Your task to perform on an android device: turn on location history Image 0: 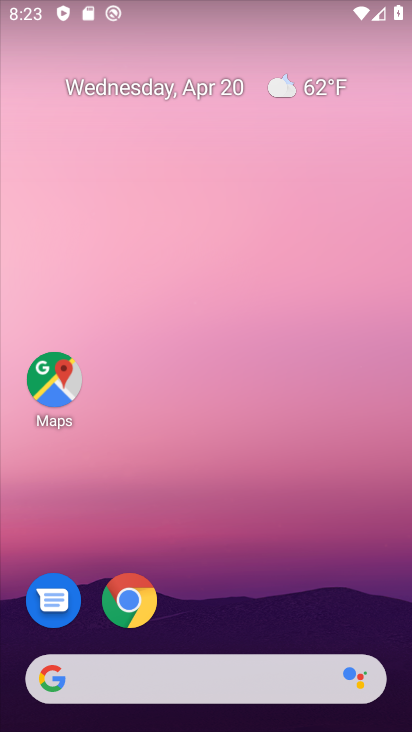
Step 0: drag from (213, 726) to (209, 154)
Your task to perform on an android device: turn on location history Image 1: 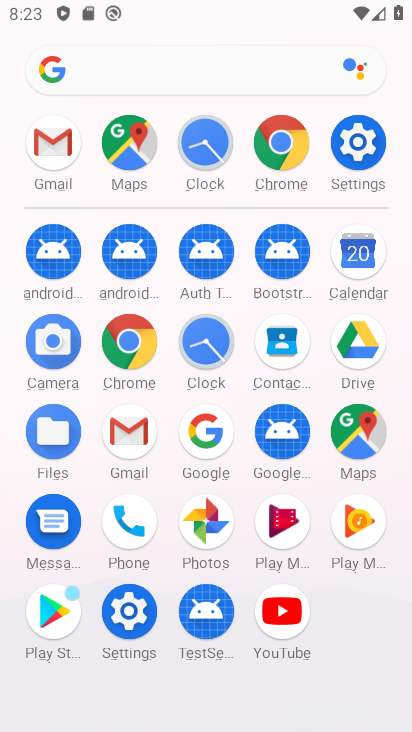
Step 1: click (361, 140)
Your task to perform on an android device: turn on location history Image 2: 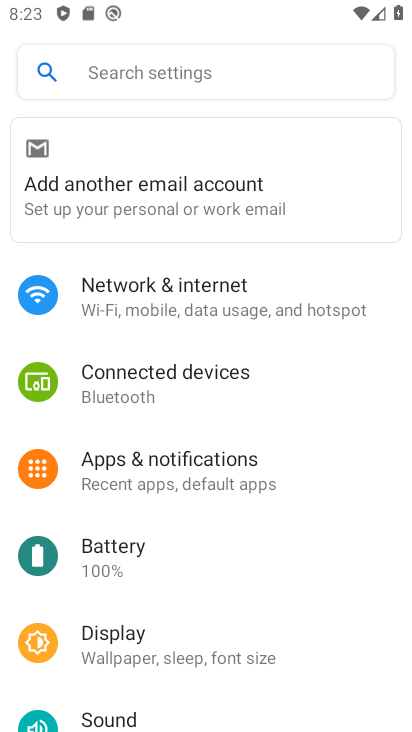
Step 2: drag from (177, 683) to (167, 287)
Your task to perform on an android device: turn on location history Image 3: 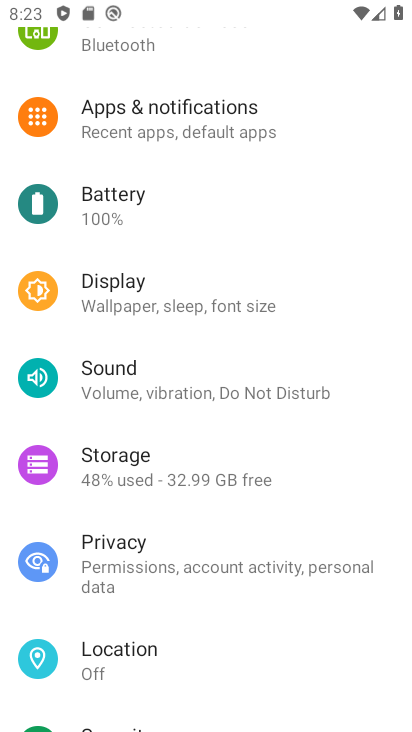
Step 3: click (101, 654)
Your task to perform on an android device: turn on location history Image 4: 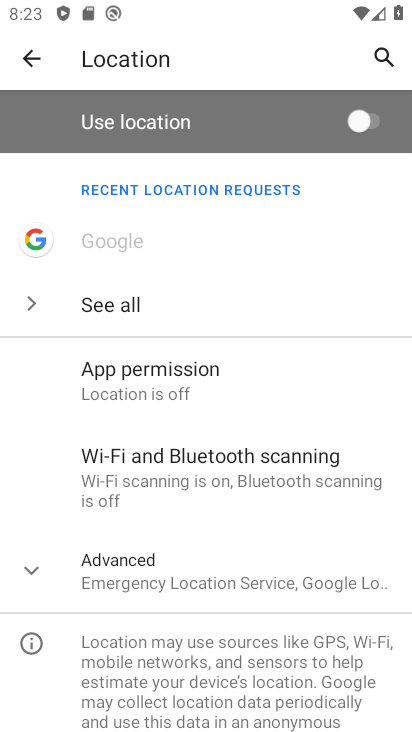
Step 4: click (175, 577)
Your task to perform on an android device: turn on location history Image 5: 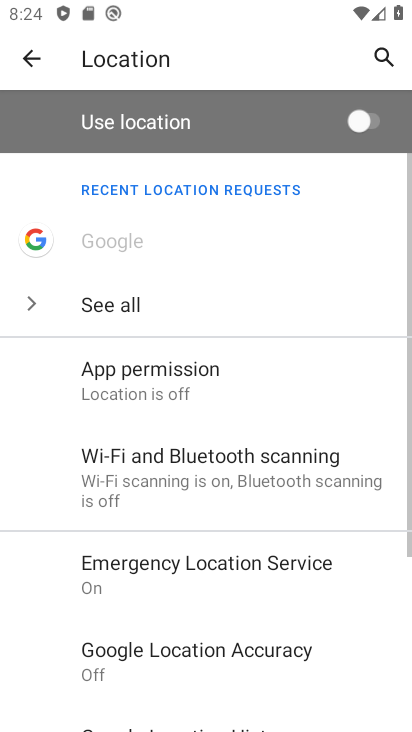
Step 5: drag from (183, 707) to (190, 447)
Your task to perform on an android device: turn on location history Image 6: 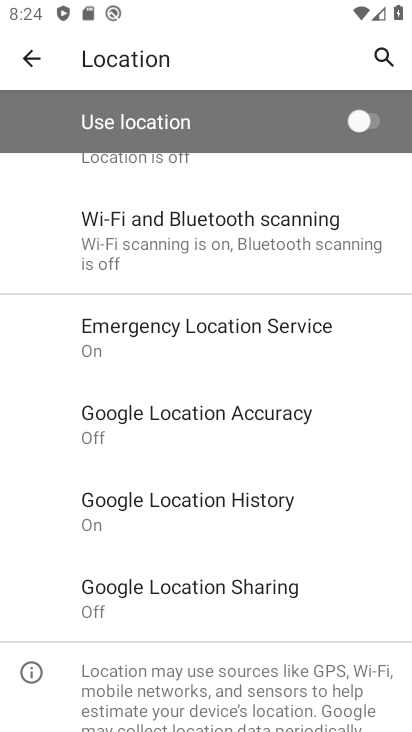
Step 6: click (204, 500)
Your task to perform on an android device: turn on location history Image 7: 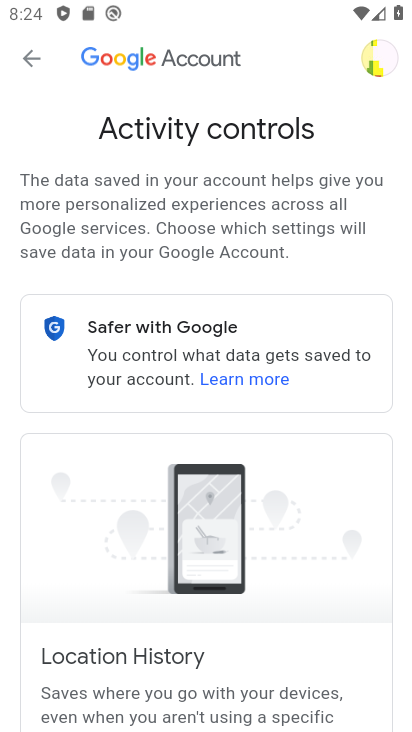
Step 7: drag from (184, 681) to (182, 213)
Your task to perform on an android device: turn on location history Image 8: 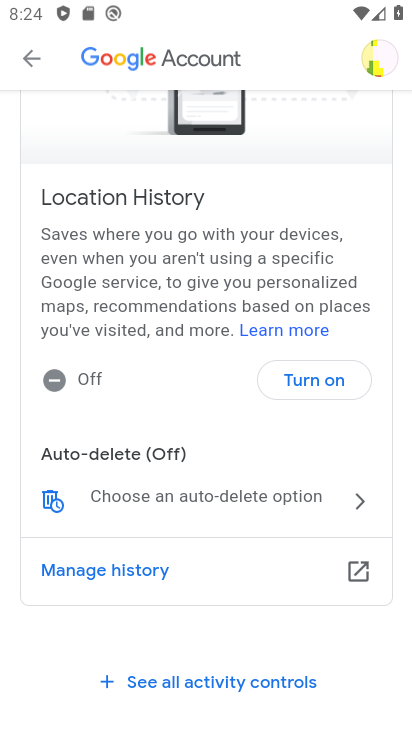
Step 8: click (324, 381)
Your task to perform on an android device: turn on location history Image 9: 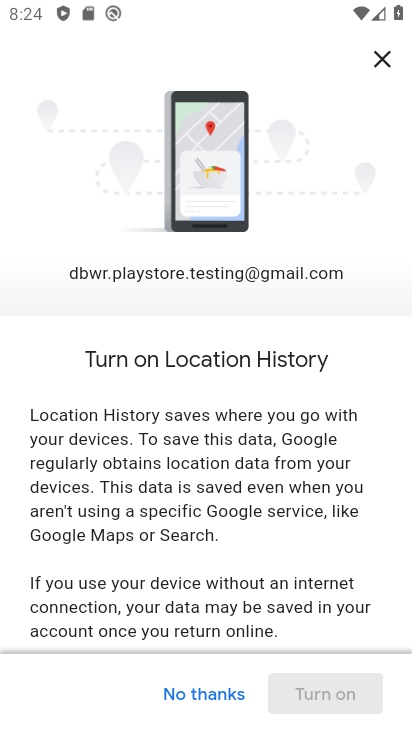
Step 9: drag from (179, 597) to (177, 150)
Your task to perform on an android device: turn on location history Image 10: 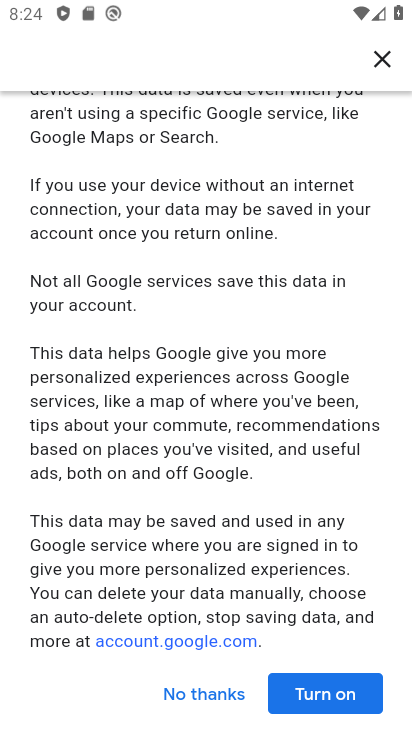
Step 10: drag from (211, 568) to (211, 361)
Your task to perform on an android device: turn on location history Image 11: 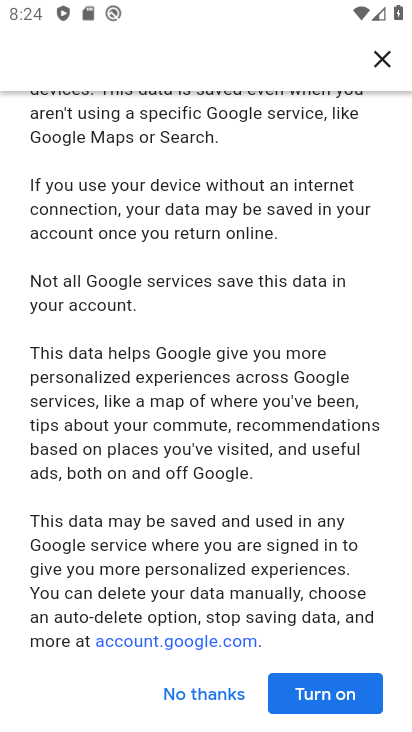
Step 11: click (350, 687)
Your task to perform on an android device: turn on location history Image 12: 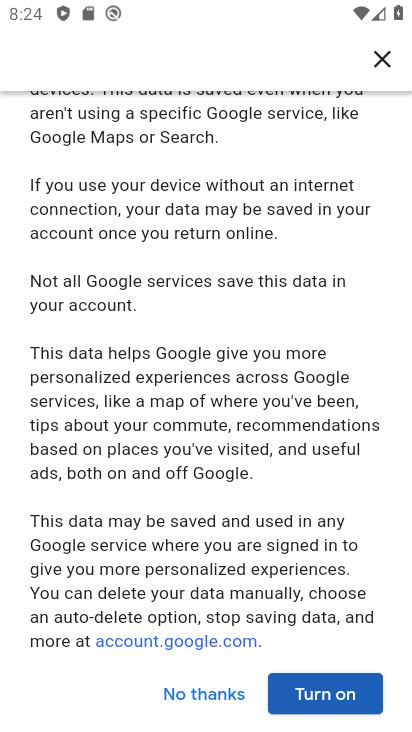
Step 12: click (335, 693)
Your task to perform on an android device: turn on location history Image 13: 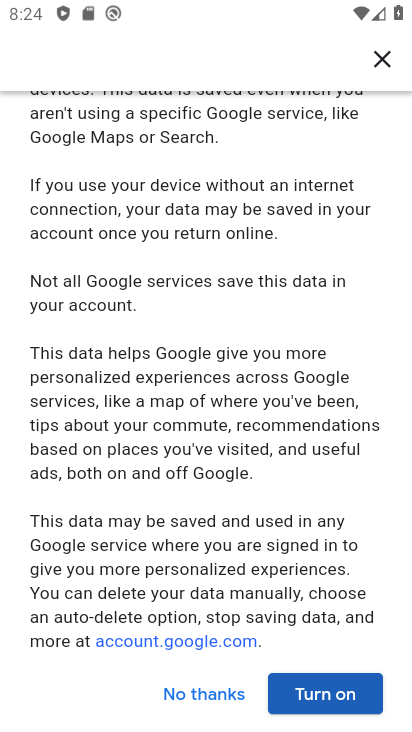
Step 13: click (335, 693)
Your task to perform on an android device: turn on location history Image 14: 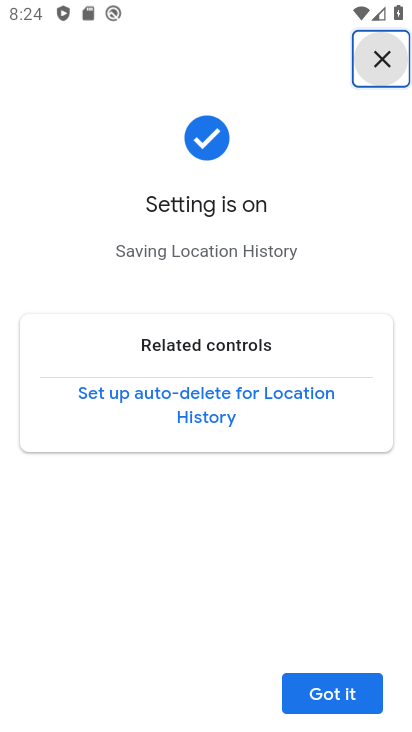
Step 14: task complete